Your task to perform on an android device: move a message to another label in the gmail app Image 0: 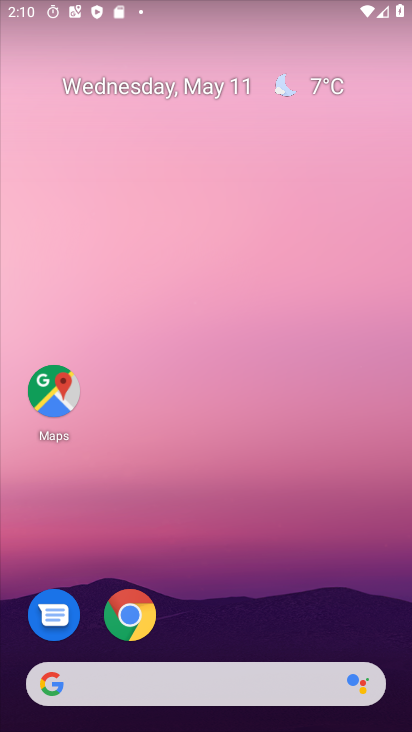
Step 0: drag from (278, 663) to (234, 202)
Your task to perform on an android device: move a message to another label in the gmail app Image 1: 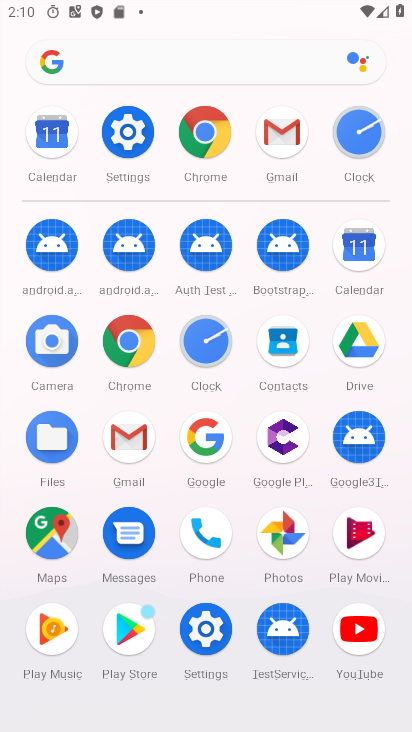
Step 1: click (106, 438)
Your task to perform on an android device: move a message to another label in the gmail app Image 2: 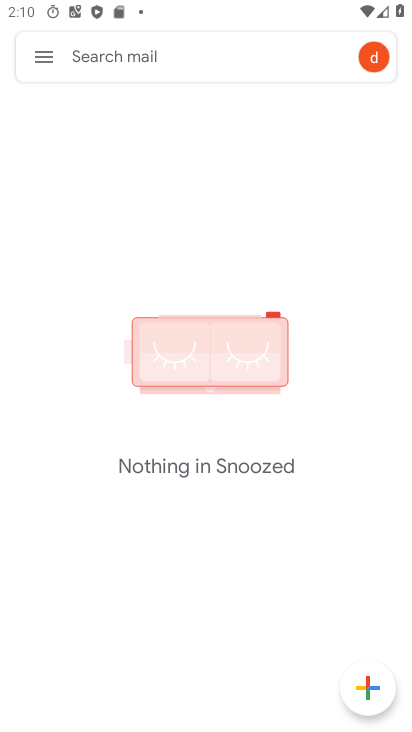
Step 2: click (50, 55)
Your task to perform on an android device: move a message to another label in the gmail app Image 3: 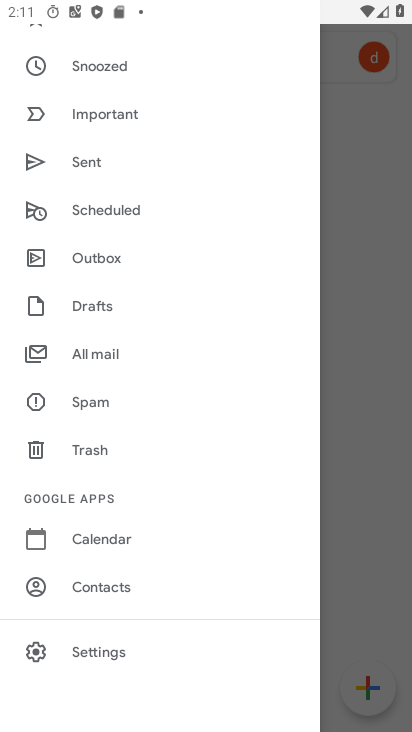
Step 3: drag from (154, 590) to (148, 404)
Your task to perform on an android device: move a message to another label in the gmail app Image 4: 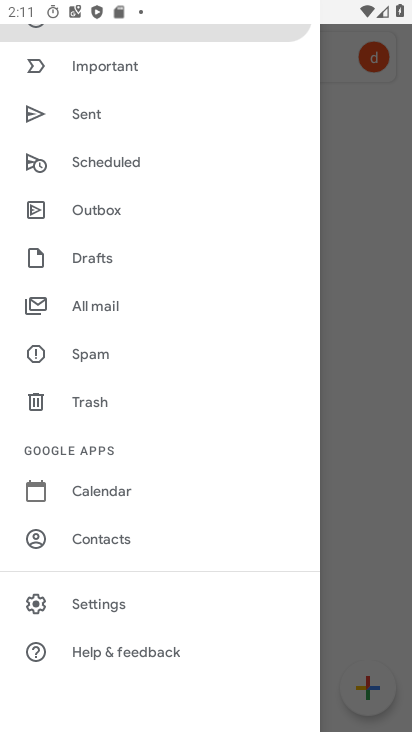
Step 4: click (98, 312)
Your task to perform on an android device: move a message to another label in the gmail app Image 5: 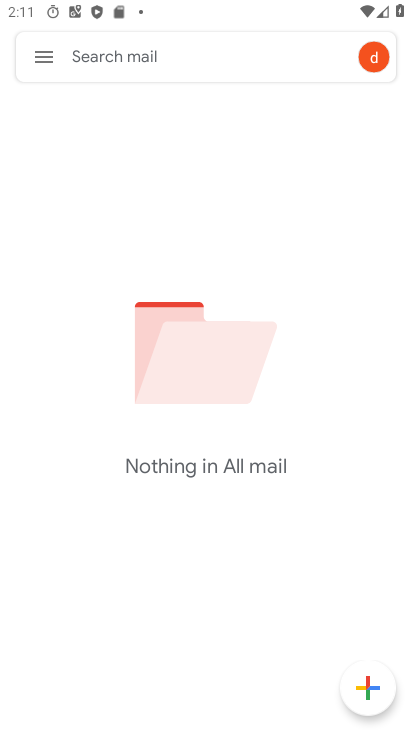
Step 5: task complete